Your task to perform on an android device: What's the weather going to be tomorrow? Image 0: 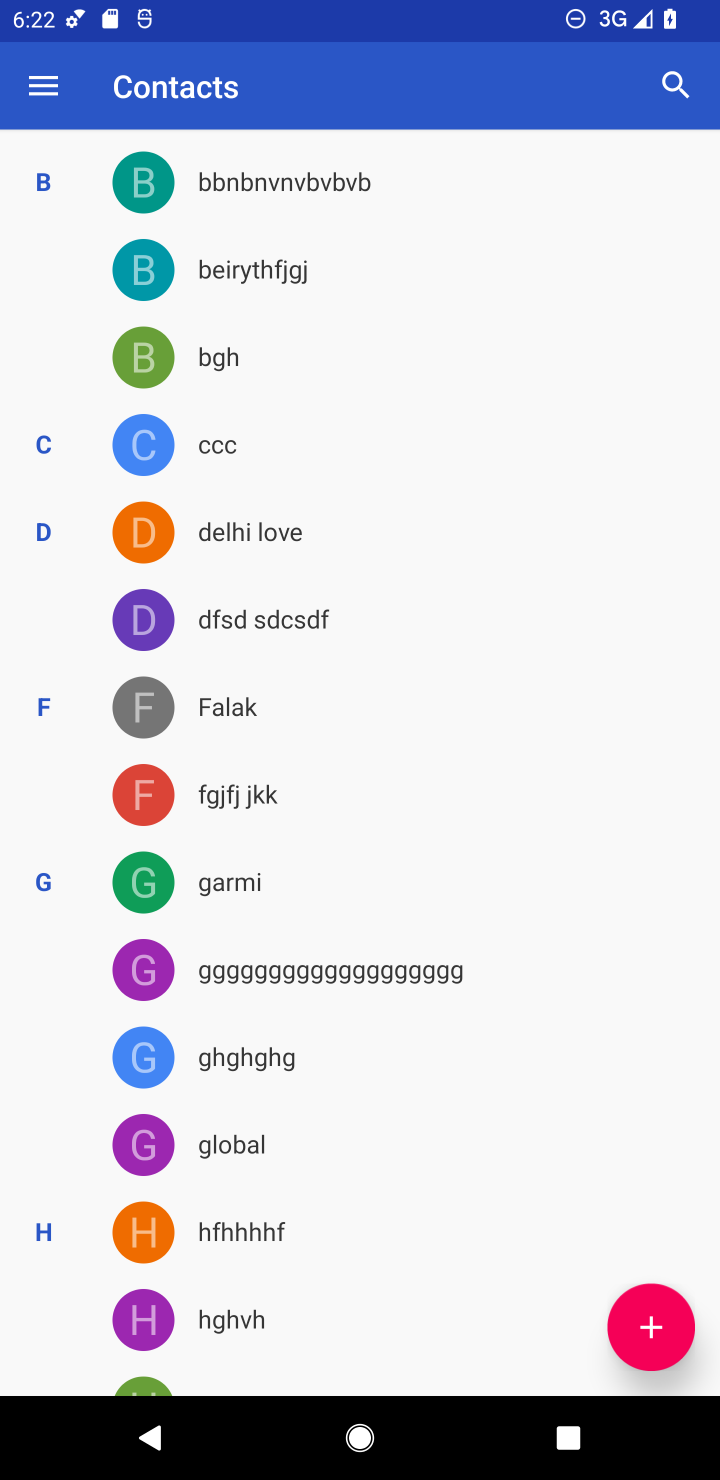
Step 0: press home button
Your task to perform on an android device: What's the weather going to be tomorrow? Image 1: 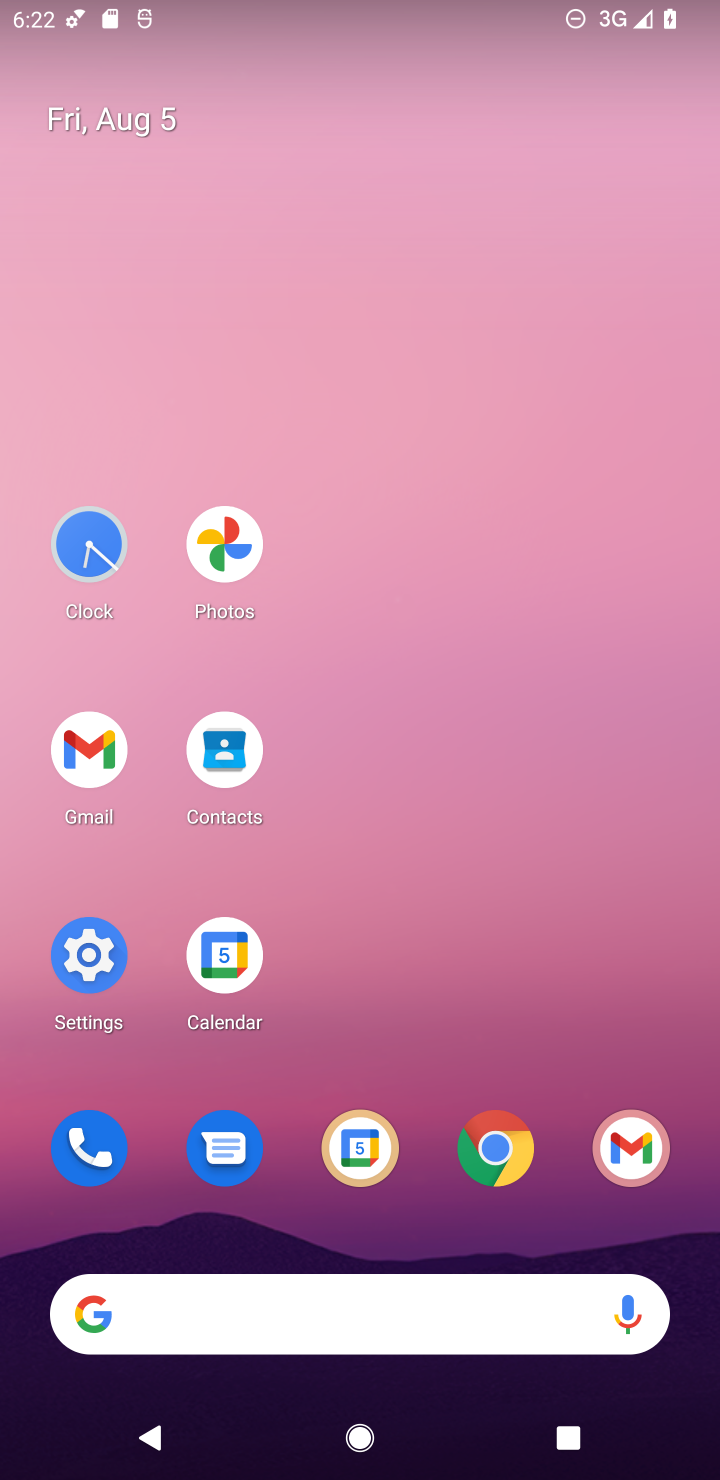
Step 1: click (393, 1302)
Your task to perform on an android device: What's the weather going to be tomorrow? Image 2: 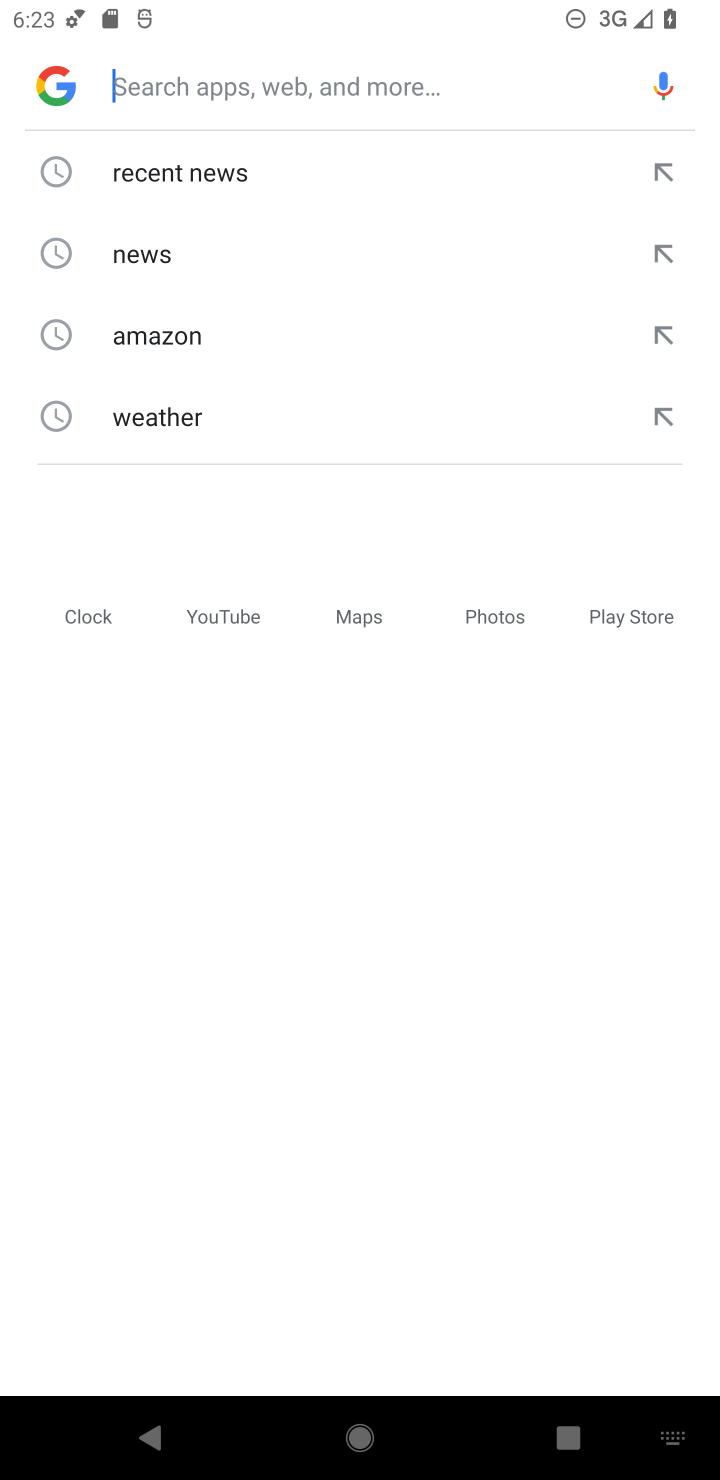
Step 2: click (167, 408)
Your task to perform on an android device: What's the weather going to be tomorrow? Image 3: 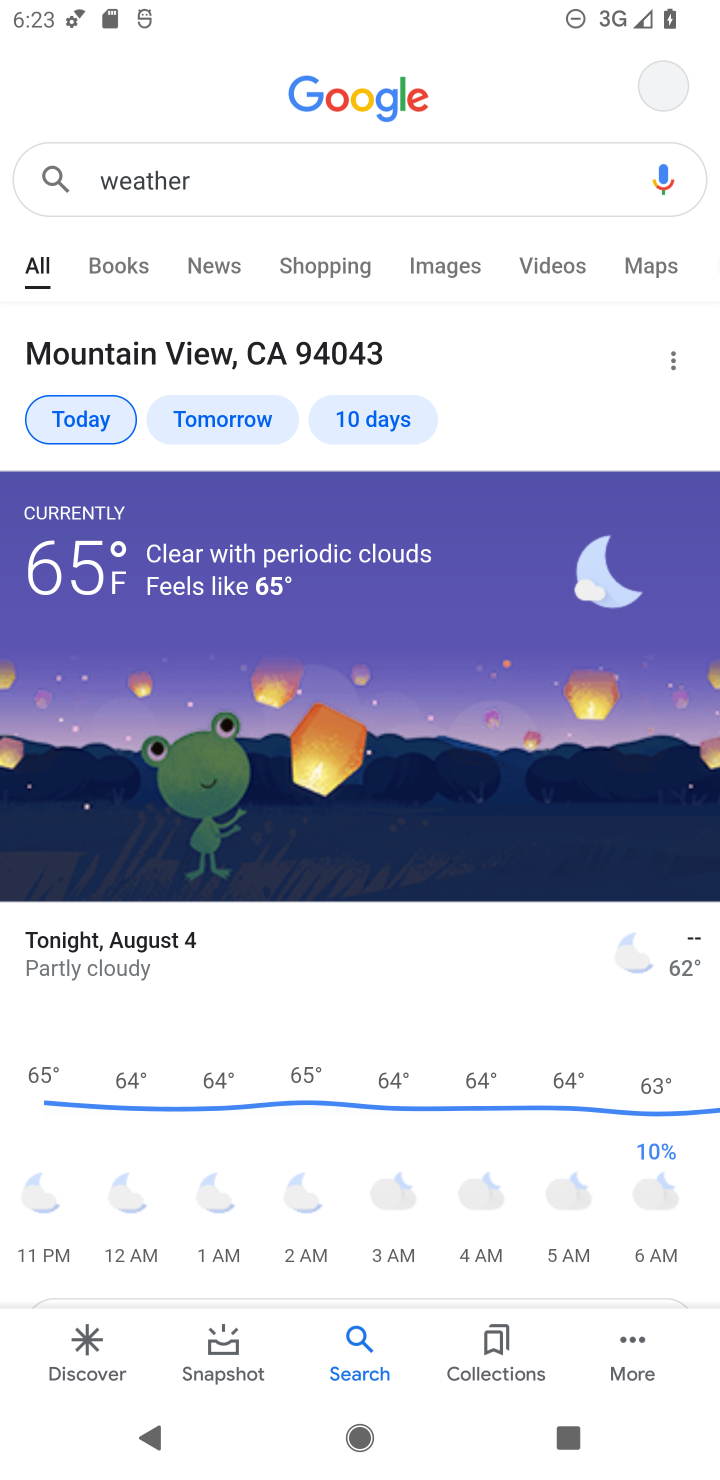
Step 3: click (231, 420)
Your task to perform on an android device: What's the weather going to be tomorrow? Image 4: 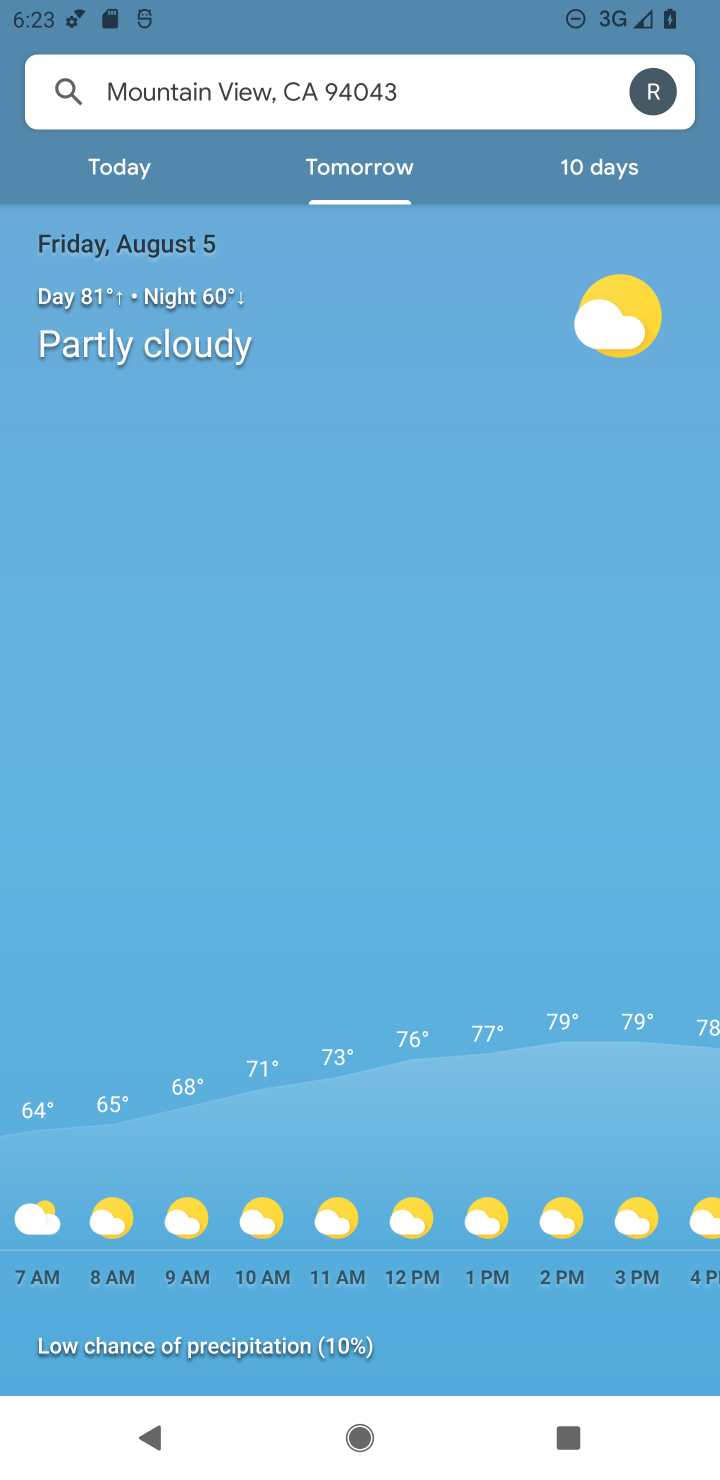
Step 4: task complete